Your task to perform on an android device: empty trash in the gmail app Image 0: 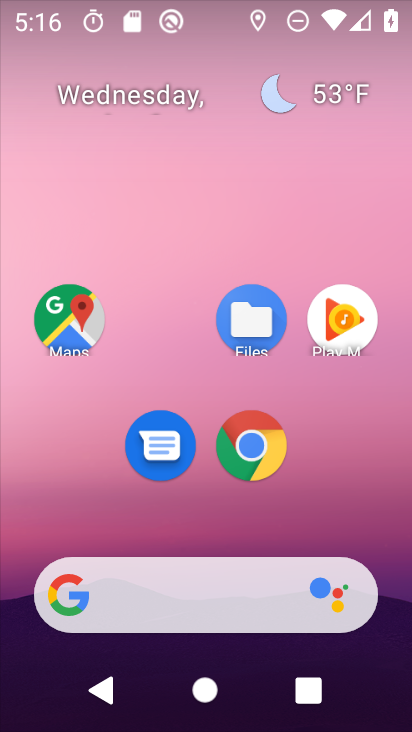
Step 0: click (274, 444)
Your task to perform on an android device: empty trash in the gmail app Image 1: 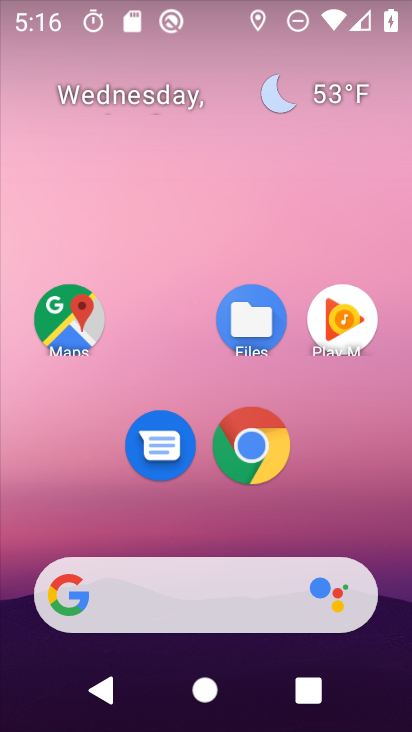
Step 1: drag from (309, 521) to (316, 337)
Your task to perform on an android device: empty trash in the gmail app Image 2: 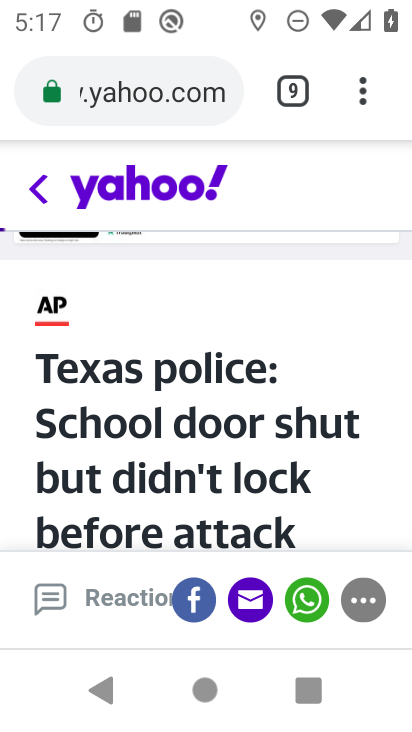
Step 2: press home button
Your task to perform on an android device: empty trash in the gmail app Image 3: 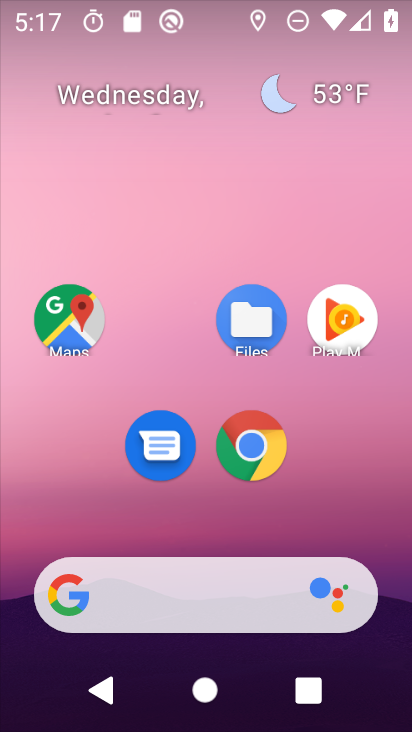
Step 3: drag from (379, 683) to (382, 336)
Your task to perform on an android device: empty trash in the gmail app Image 4: 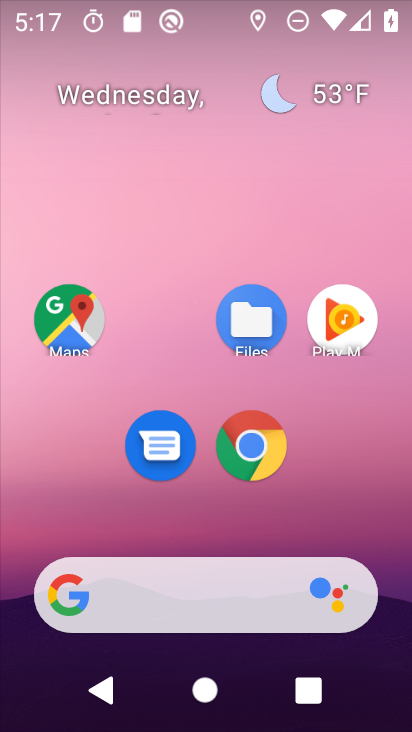
Step 4: drag from (361, 479) to (305, 126)
Your task to perform on an android device: empty trash in the gmail app Image 5: 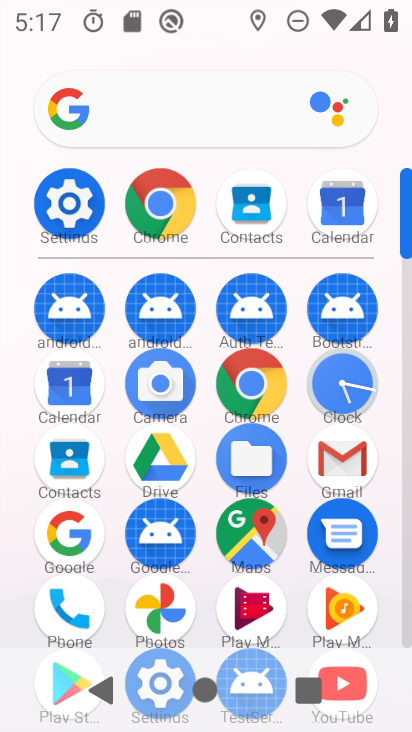
Step 5: click (323, 478)
Your task to perform on an android device: empty trash in the gmail app Image 6: 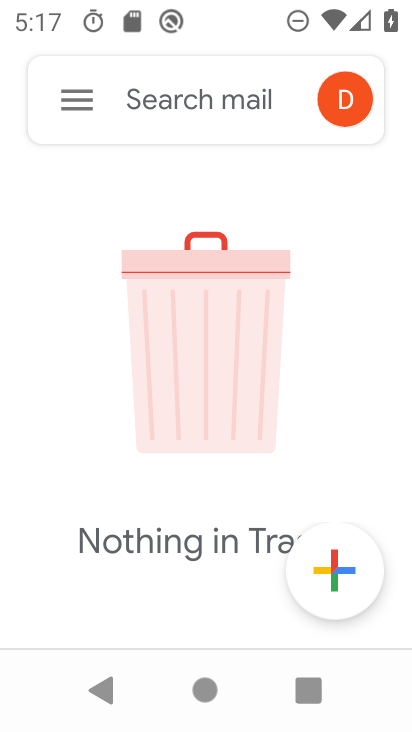
Step 6: click (79, 117)
Your task to perform on an android device: empty trash in the gmail app Image 7: 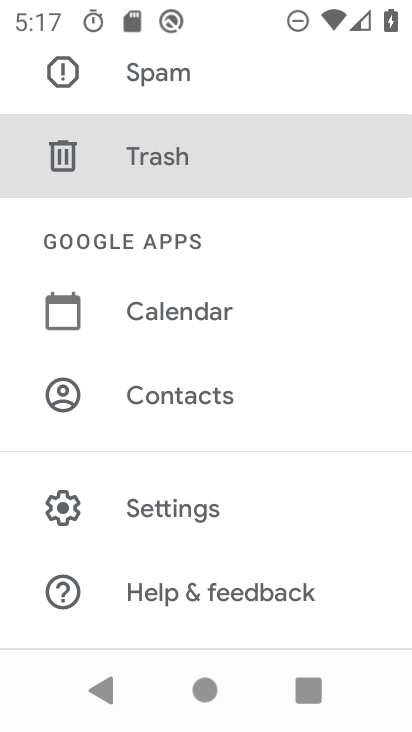
Step 7: click (109, 147)
Your task to perform on an android device: empty trash in the gmail app Image 8: 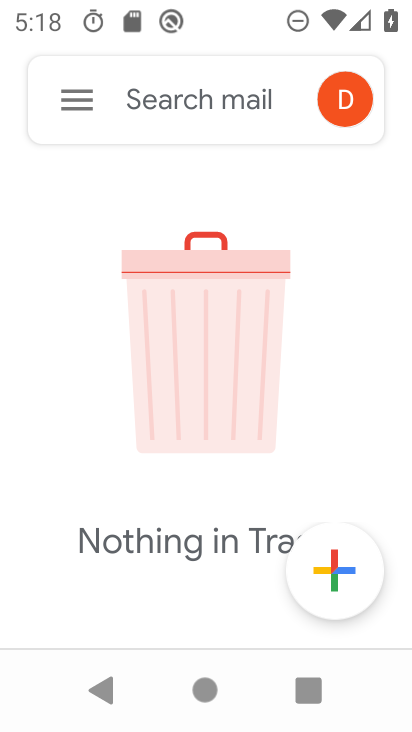
Step 8: task complete